Your task to perform on an android device: change the upload size in google photos Image 0: 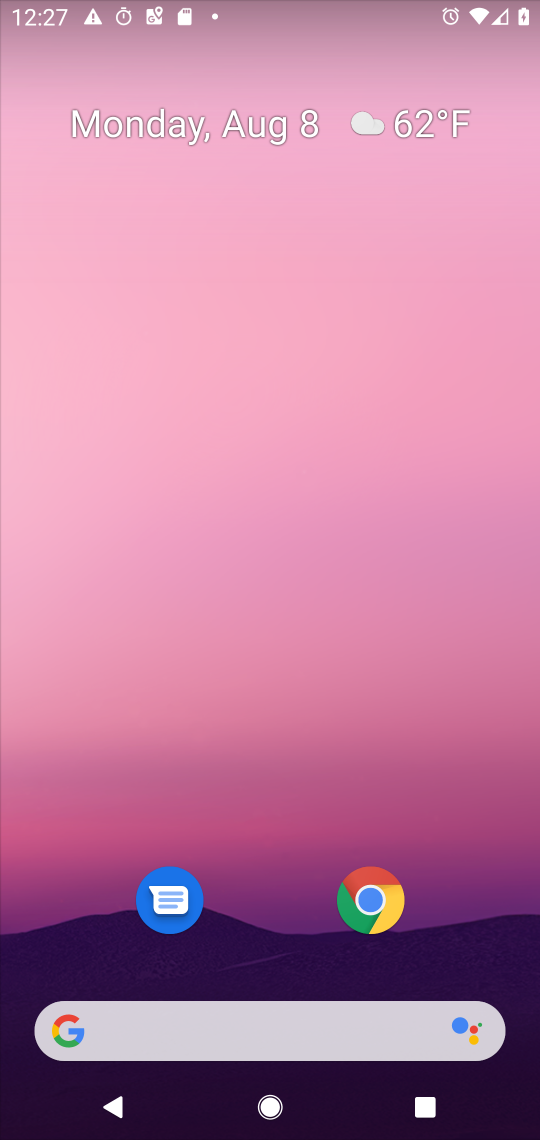
Step 0: press home button
Your task to perform on an android device: change the upload size in google photos Image 1: 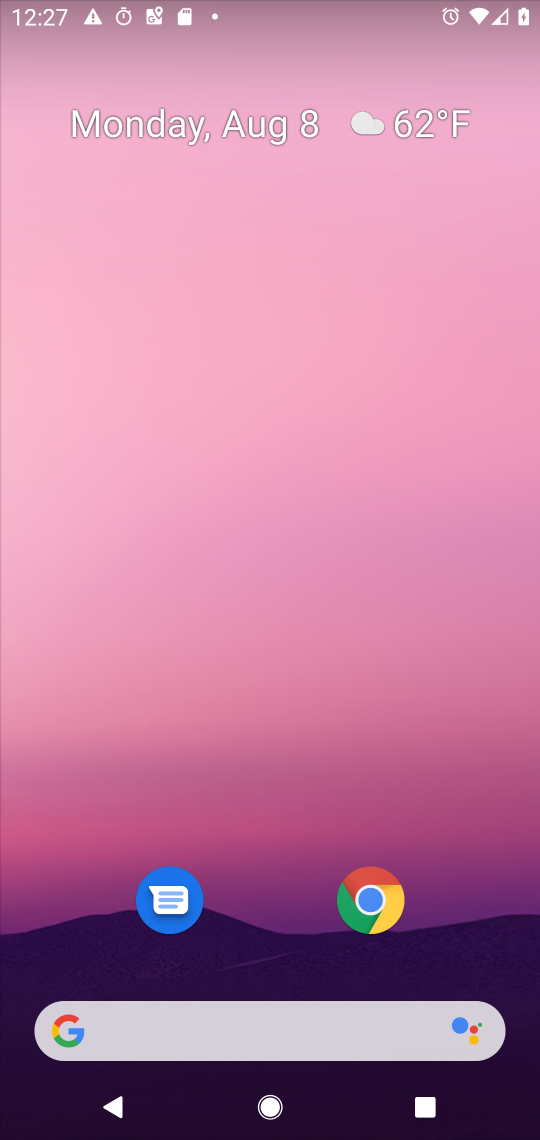
Step 1: drag from (278, 974) to (352, 79)
Your task to perform on an android device: change the upload size in google photos Image 2: 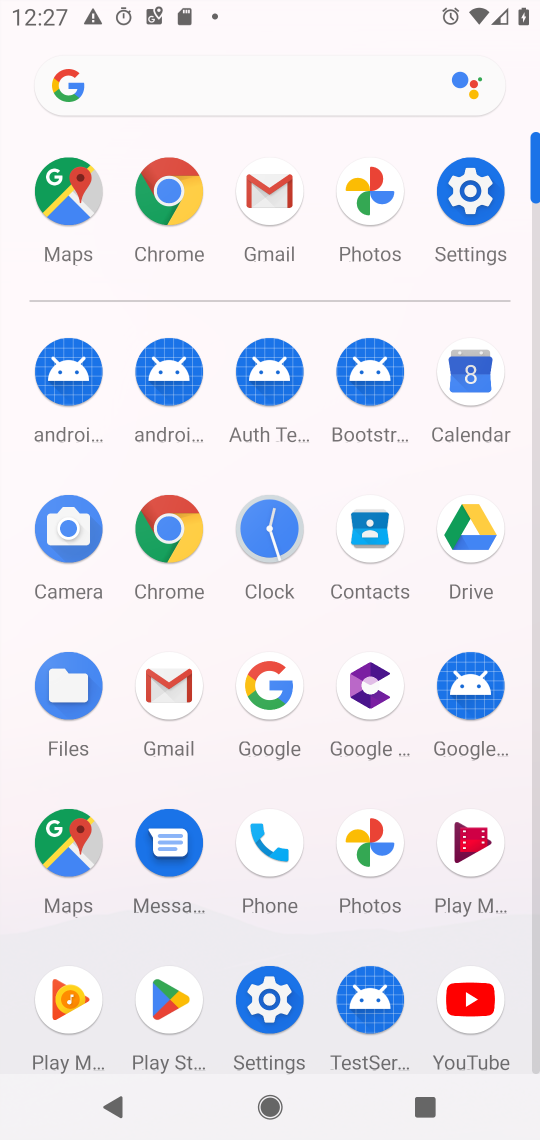
Step 2: click (364, 830)
Your task to perform on an android device: change the upload size in google photos Image 3: 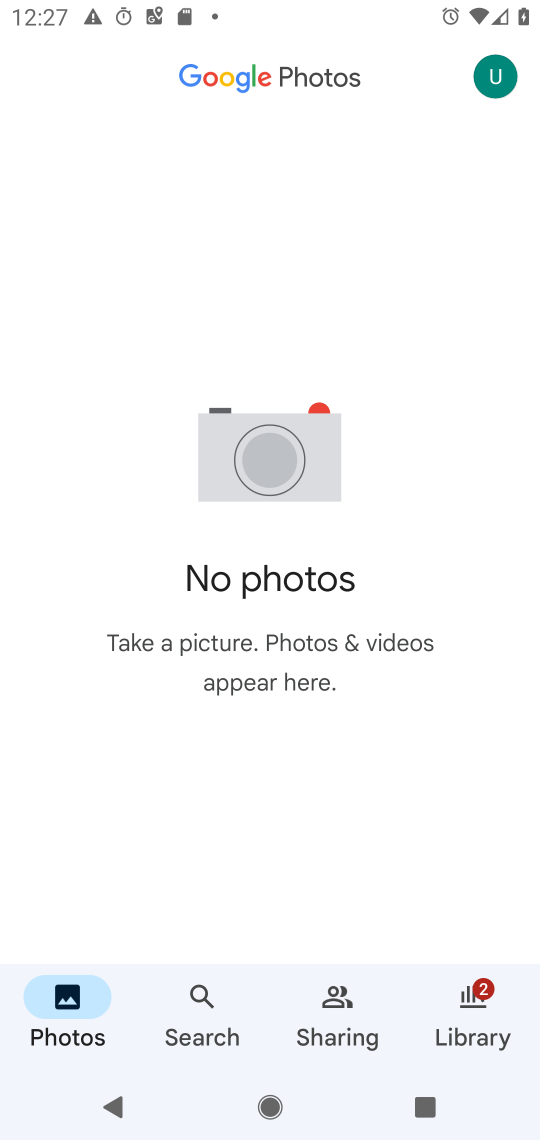
Step 3: click (489, 68)
Your task to perform on an android device: change the upload size in google photos Image 4: 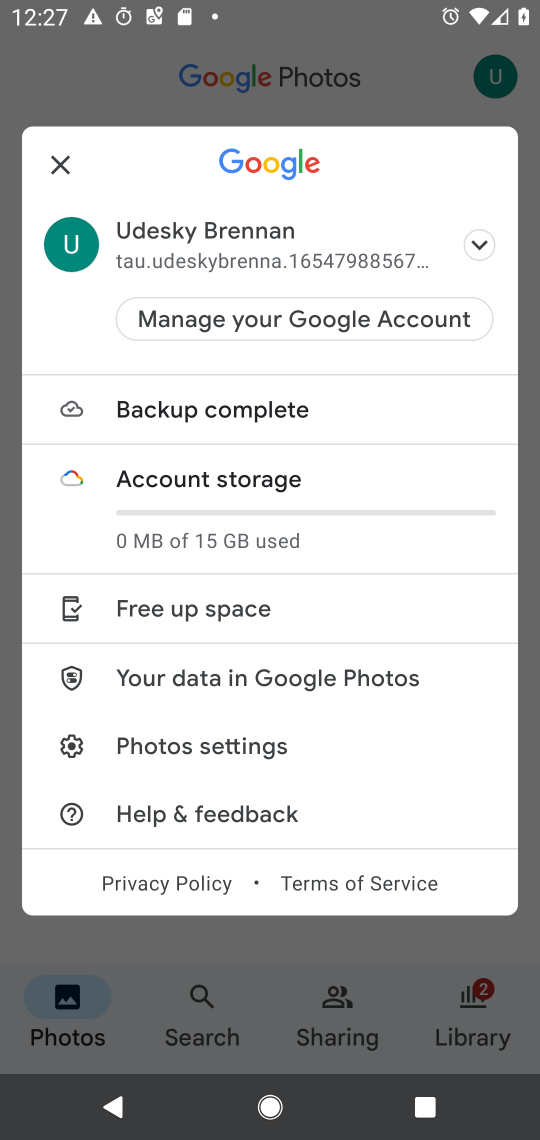
Step 4: click (248, 740)
Your task to perform on an android device: change the upload size in google photos Image 5: 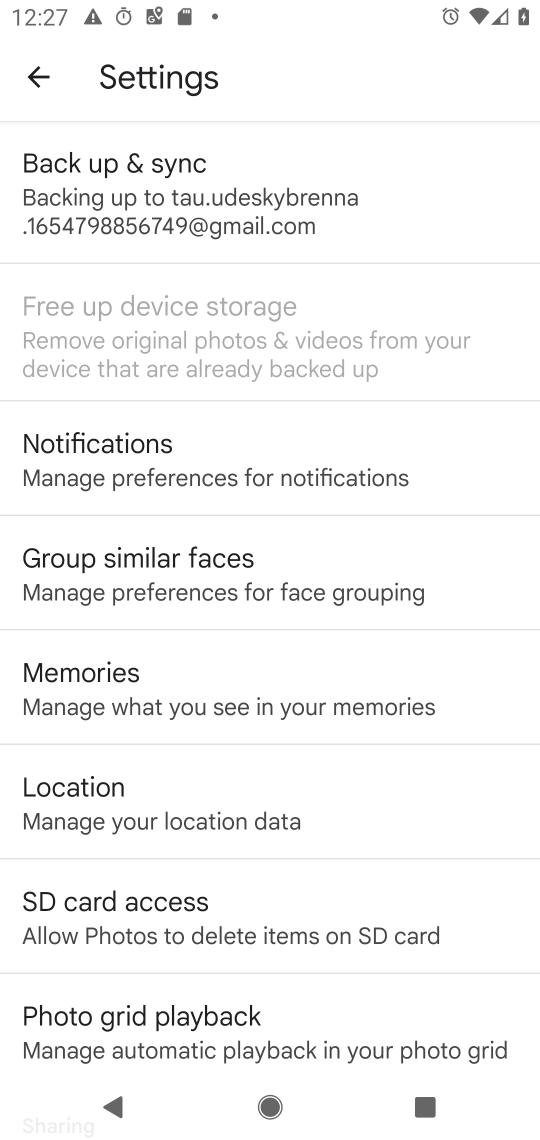
Step 5: click (207, 193)
Your task to perform on an android device: change the upload size in google photos Image 6: 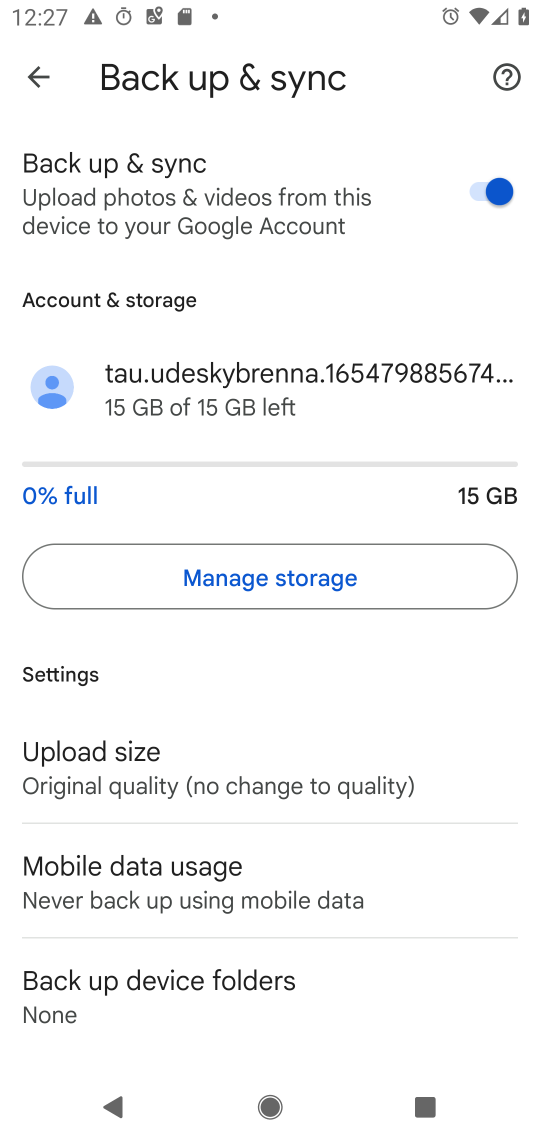
Step 6: click (184, 764)
Your task to perform on an android device: change the upload size in google photos Image 7: 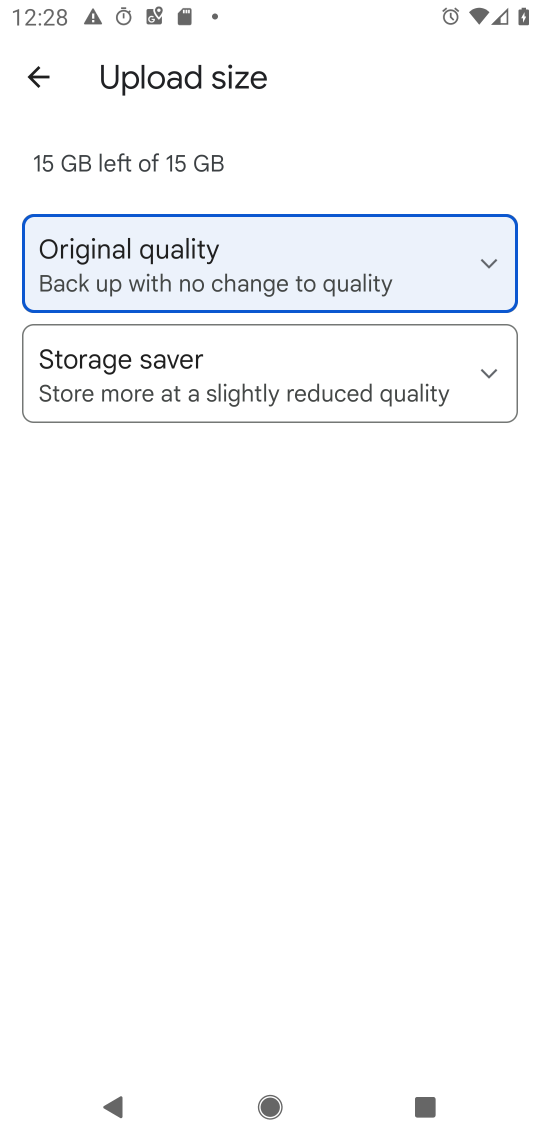
Step 7: click (179, 355)
Your task to perform on an android device: change the upload size in google photos Image 8: 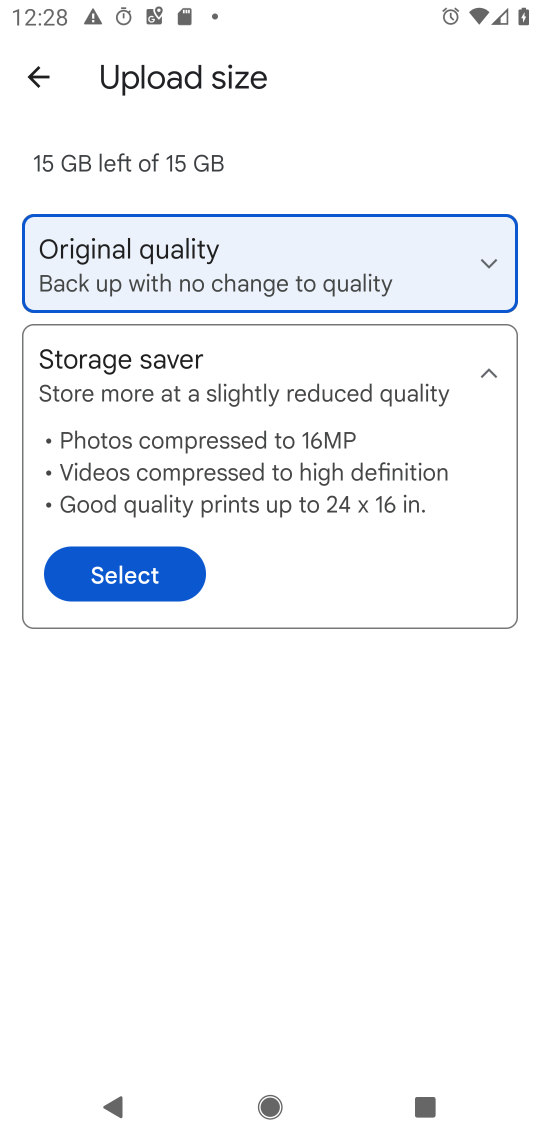
Step 8: click (150, 574)
Your task to perform on an android device: change the upload size in google photos Image 9: 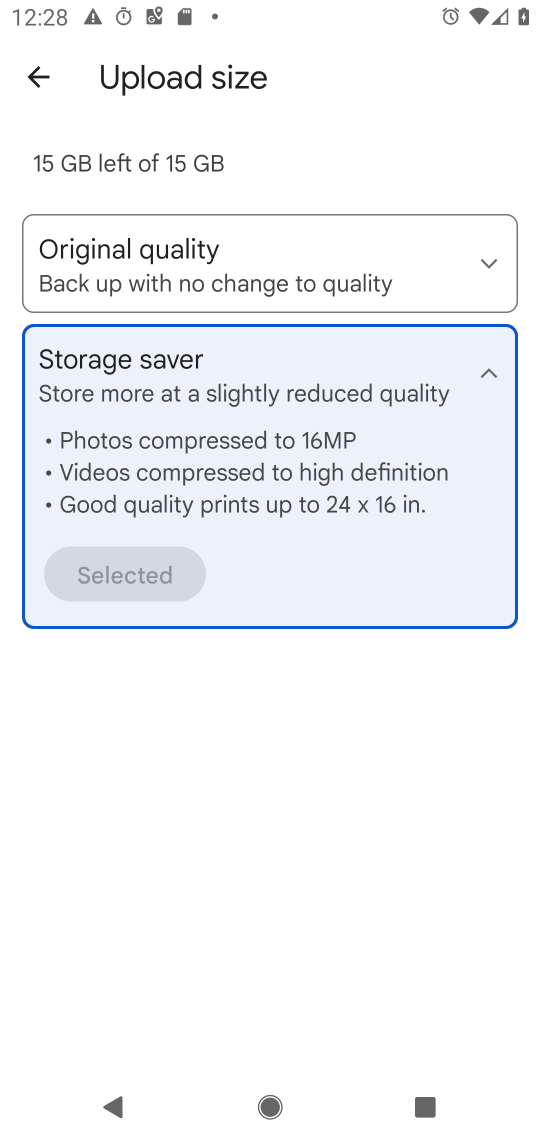
Step 9: task complete